Your task to perform on an android device: What is the recent news? Image 0: 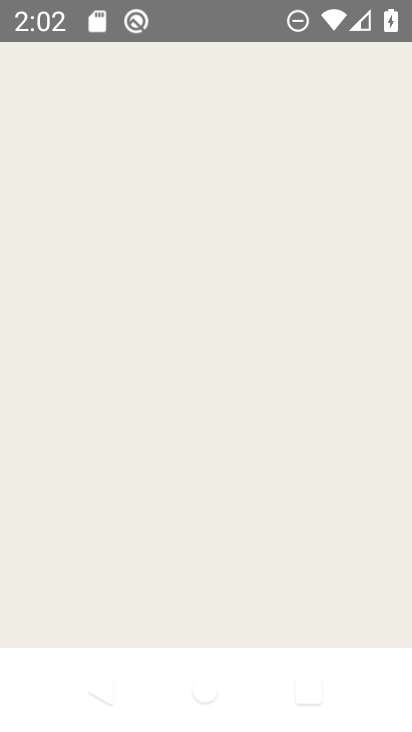
Step 0: press home button
Your task to perform on an android device: What is the recent news? Image 1: 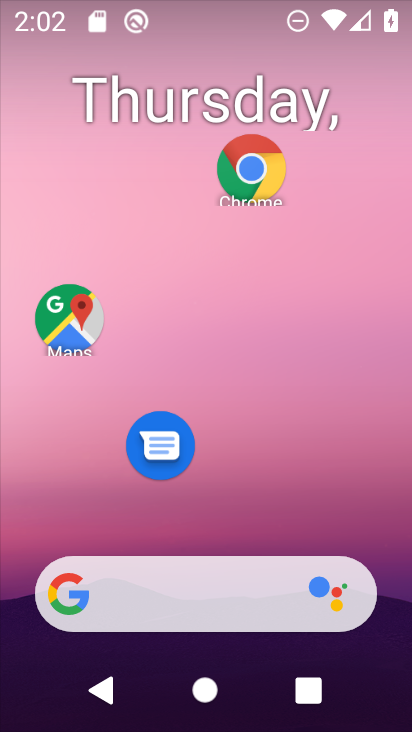
Step 1: drag from (229, 630) to (197, 164)
Your task to perform on an android device: What is the recent news? Image 2: 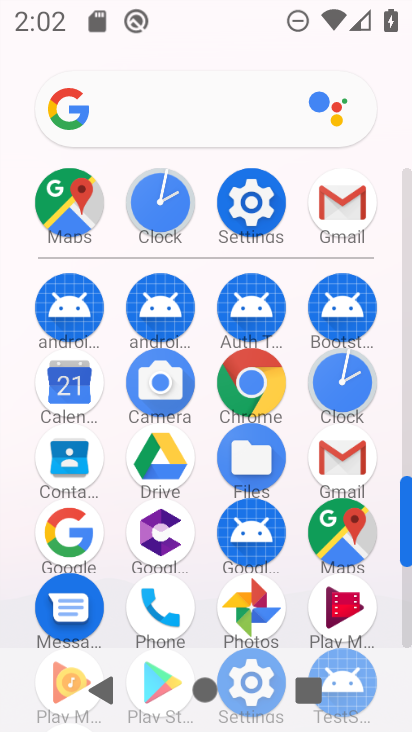
Step 2: click (163, 134)
Your task to perform on an android device: What is the recent news? Image 3: 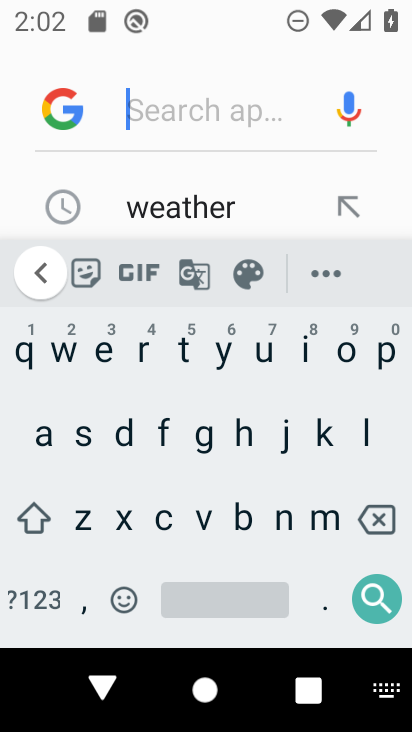
Step 3: press back button
Your task to perform on an android device: What is the recent news? Image 4: 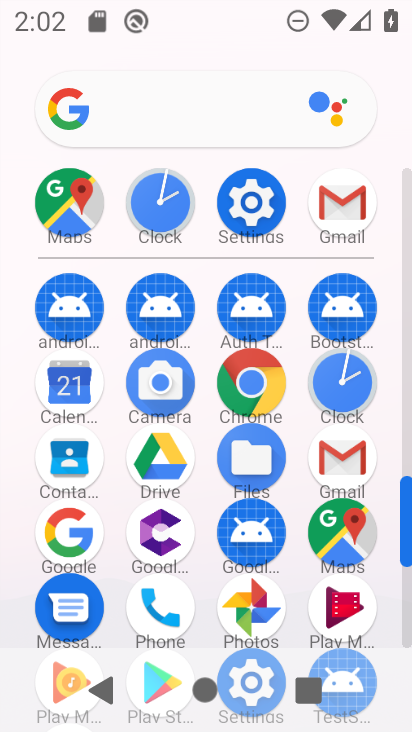
Step 4: click (182, 122)
Your task to perform on an android device: What is the recent news? Image 5: 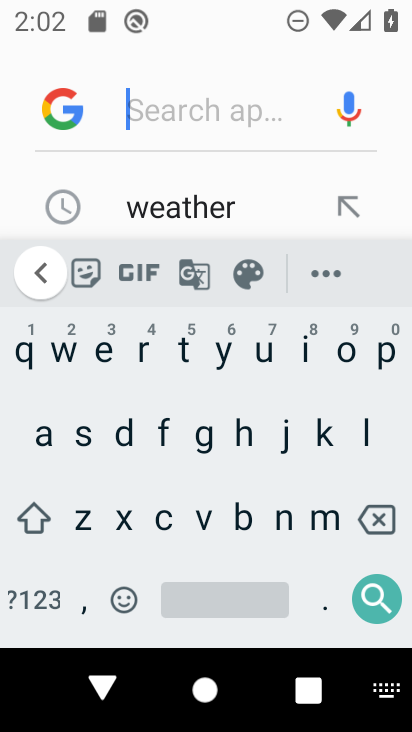
Step 5: click (143, 353)
Your task to perform on an android device: What is the recent news? Image 6: 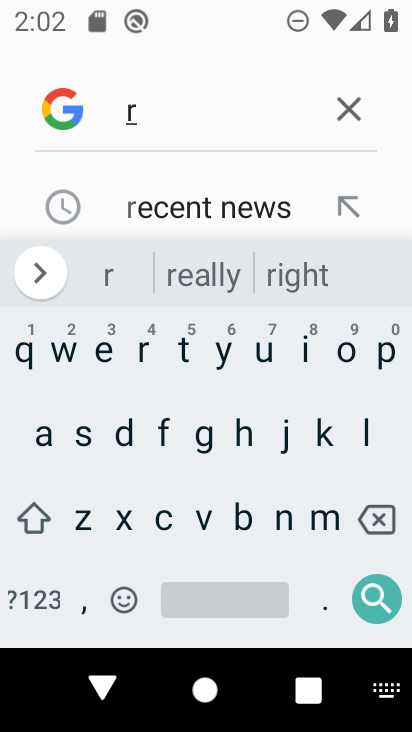
Step 6: click (206, 207)
Your task to perform on an android device: What is the recent news? Image 7: 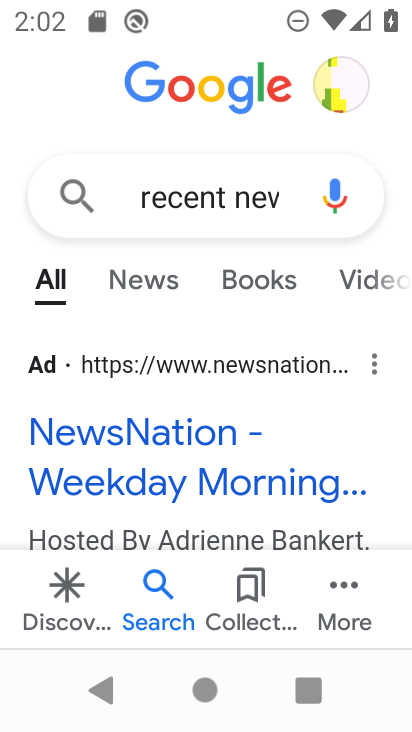
Step 7: click (150, 279)
Your task to perform on an android device: What is the recent news? Image 8: 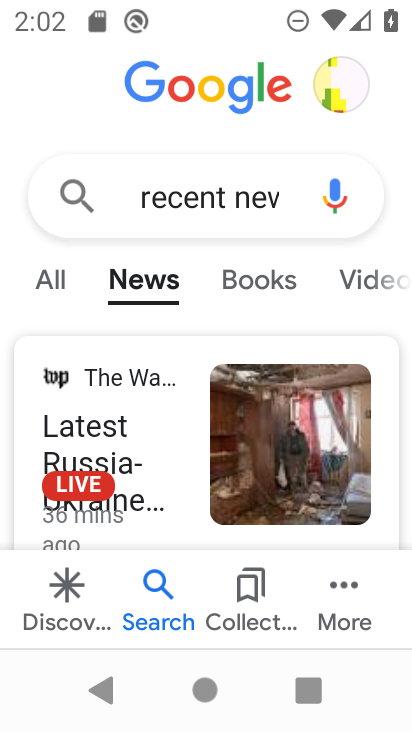
Step 8: task complete